Your task to perform on an android device: change notification settings in the gmail app Image 0: 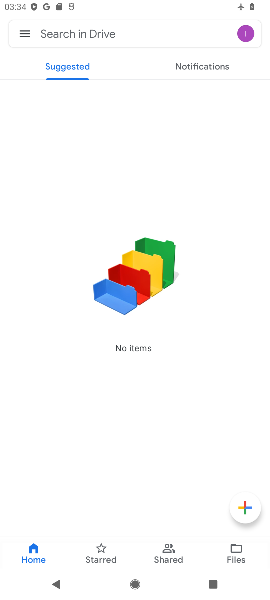
Step 0: press home button
Your task to perform on an android device: change notification settings in the gmail app Image 1: 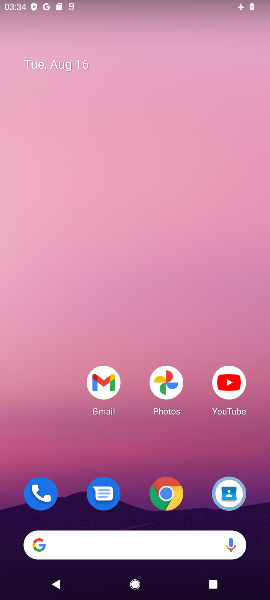
Step 1: drag from (64, 471) to (63, 120)
Your task to perform on an android device: change notification settings in the gmail app Image 2: 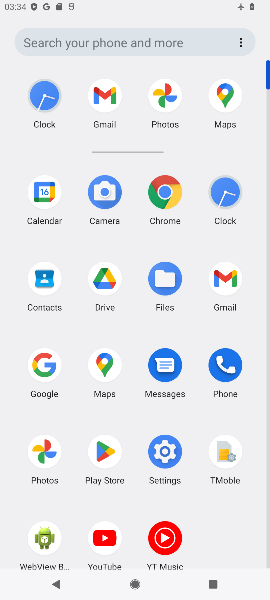
Step 2: click (221, 278)
Your task to perform on an android device: change notification settings in the gmail app Image 3: 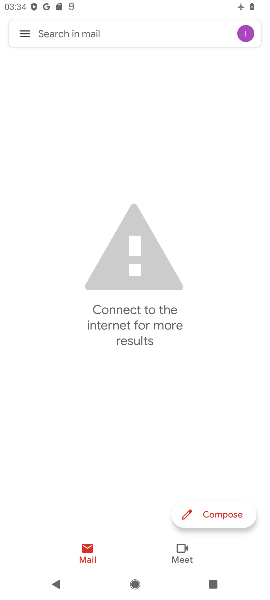
Step 3: click (25, 29)
Your task to perform on an android device: change notification settings in the gmail app Image 4: 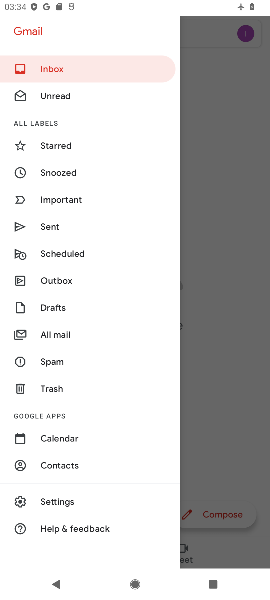
Step 4: click (59, 497)
Your task to perform on an android device: change notification settings in the gmail app Image 5: 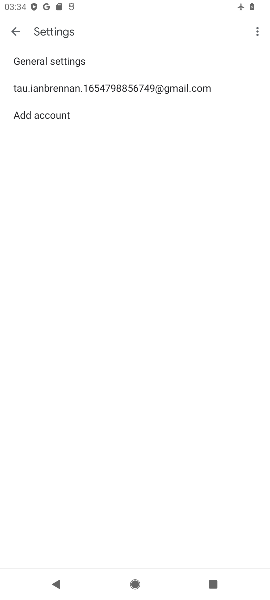
Step 5: click (174, 83)
Your task to perform on an android device: change notification settings in the gmail app Image 6: 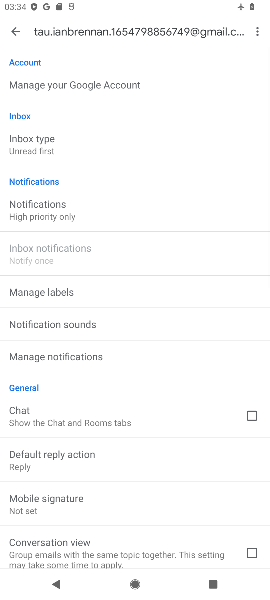
Step 6: drag from (204, 333) to (216, 244)
Your task to perform on an android device: change notification settings in the gmail app Image 7: 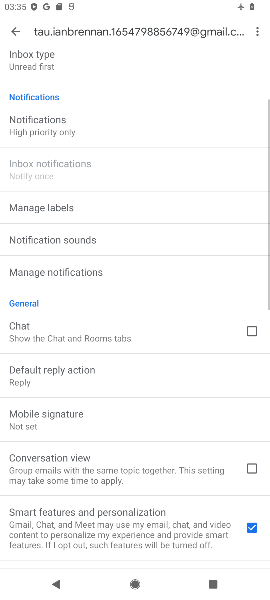
Step 7: drag from (196, 393) to (204, 288)
Your task to perform on an android device: change notification settings in the gmail app Image 8: 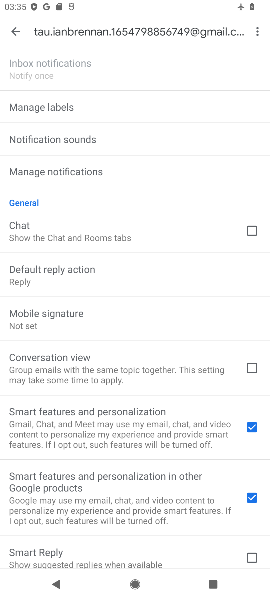
Step 8: drag from (182, 443) to (197, 334)
Your task to perform on an android device: change notification settings in the gmail app Image 9: 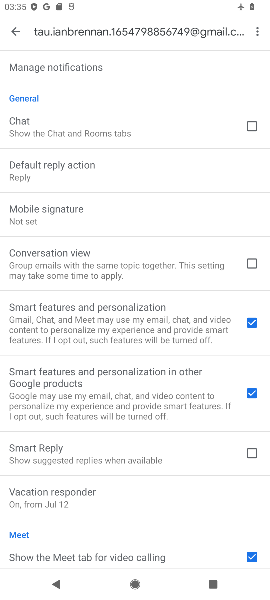
Step 9: drag from (205, 508) to (204, 381)
Your task to perform on an android device: change notification settings in the gmail app Image 10: 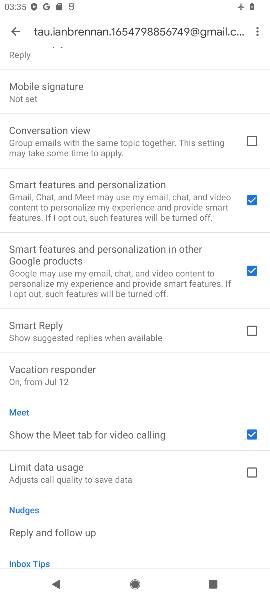
Step 10: drag from (198, 482) to (199, 359)
Your task to perform on an android device: change notification settings in the gmail app Image 11: 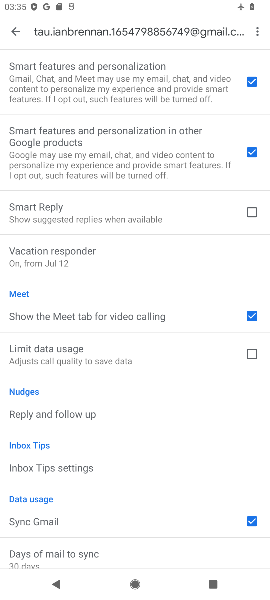
Step 11: drag from (211, 158) to (205, 254)
Your task to perform on an android device: change notification settings in the gmail app Image 12: 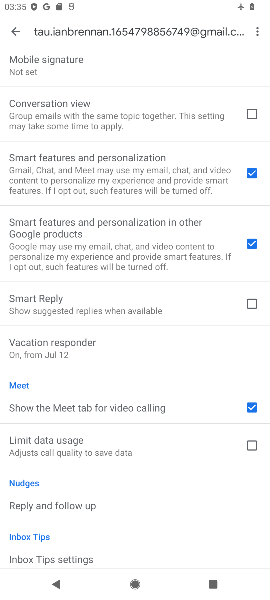
Step 12: drag from (203, 75) to (204, 242)
Your task to perform on an android device: change notification settings in the gmail app Image 13: 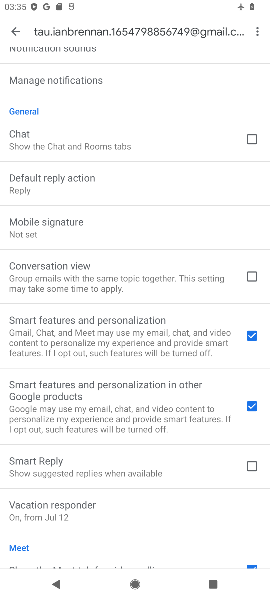
Step 13: drag from (210, 91) to (216, 278)
Your task to perform on an android device: change notification settings in the gmail app Image 14: 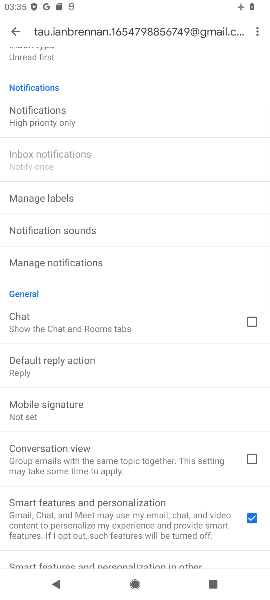
Step 14: drag from (190, 76) to (189, 253)
Your task to perform on an android device: change notification settings in the gmail app Image 15: 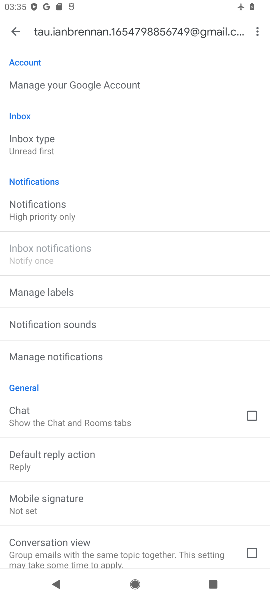
Step 15: click (99, 221)
Your task to perform on an android device: change notification settings in the gmail app Image 16: 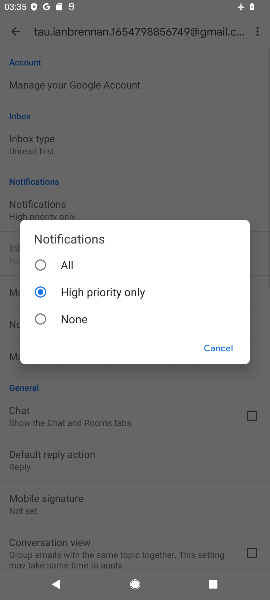
Step 16: click (92, 256)
Your task to perform on an android device: change notification settings in the gmail app Image 17: 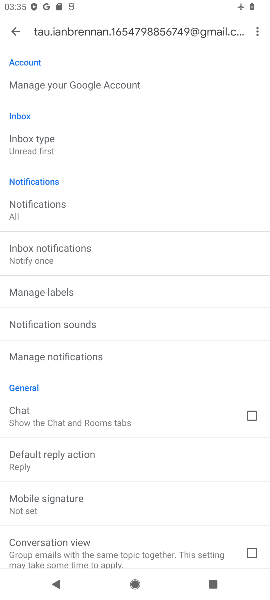
Step 17: task complete